Your task to perform on an android device: toggle show notifications on the lock screen Image 0: 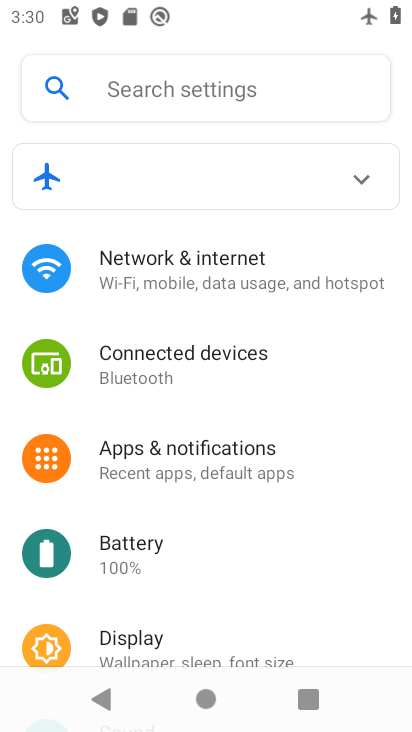
Step 0: click (178, 477)
Your task to perform on an android device: toggle show notifications on the lock screen Image 1: 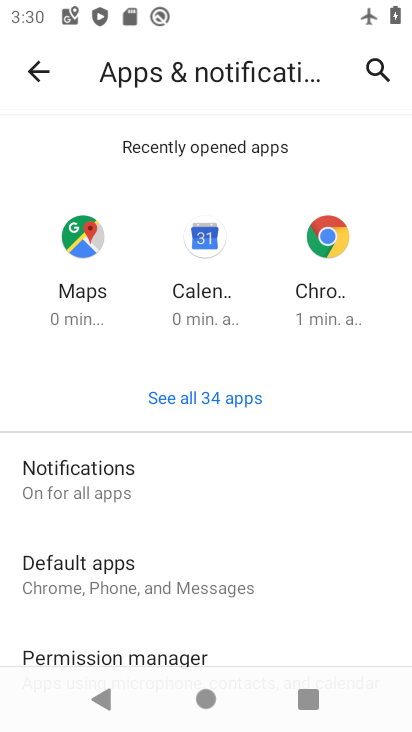
Step 1: drag from (84, 628) to (250, 203)
Your task to perform on an android device: toggle show notifications on the lock screen Image 2: 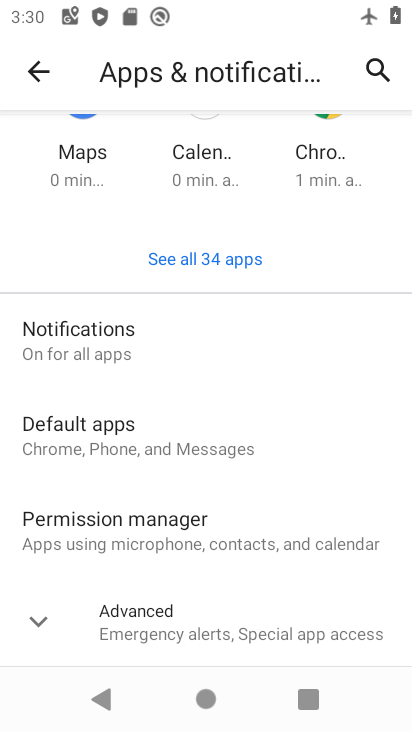
Step 2: click (166, 361)
Your task to perform on an android device: toggle show notifications on the lock screen Image 3: 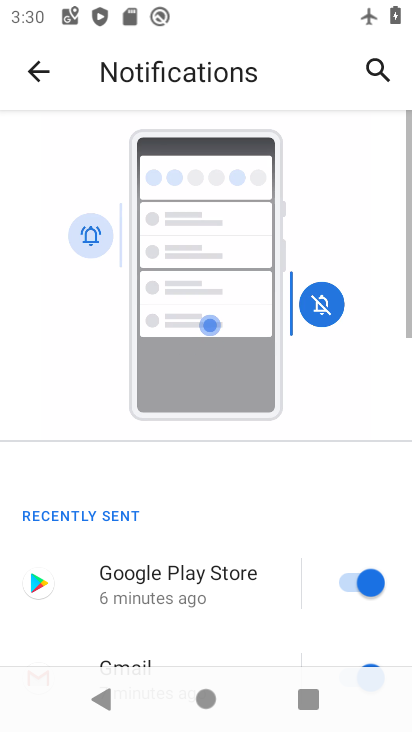
Step 3: drag from (177, 639) to (339, 122)
Your task to perform on an android device: toggle show notifications on the lock screen Image 4: 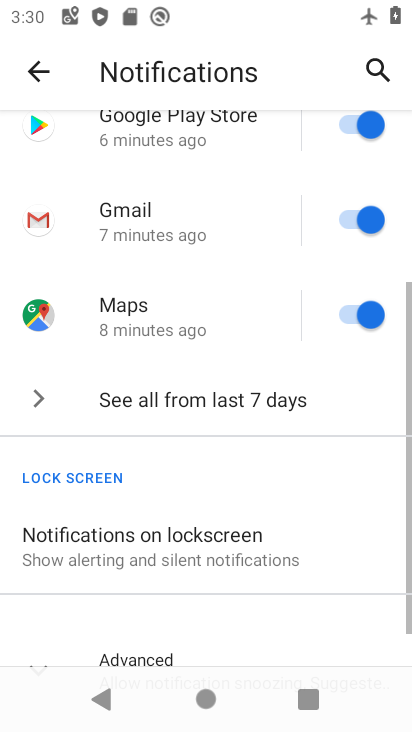
Step 4: drag from (155, 569) to (262, 232)
Your task to perform on an android device: toggle show notifications on the lock screen Image 5: 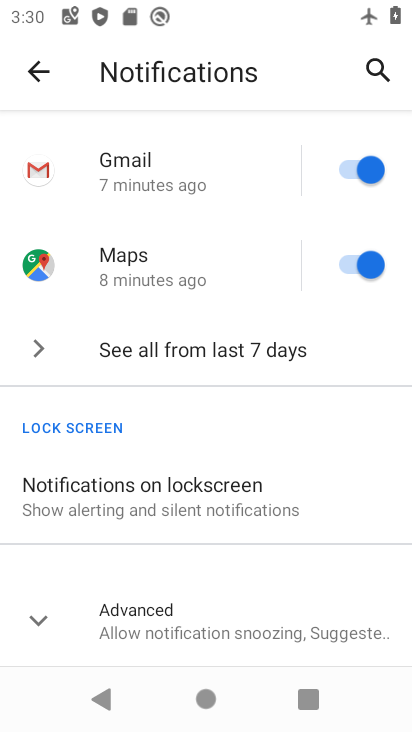
Step 5: click (236, 509)
Your task to perform on an android device: toggle show notifications on the lock screen Image 6: 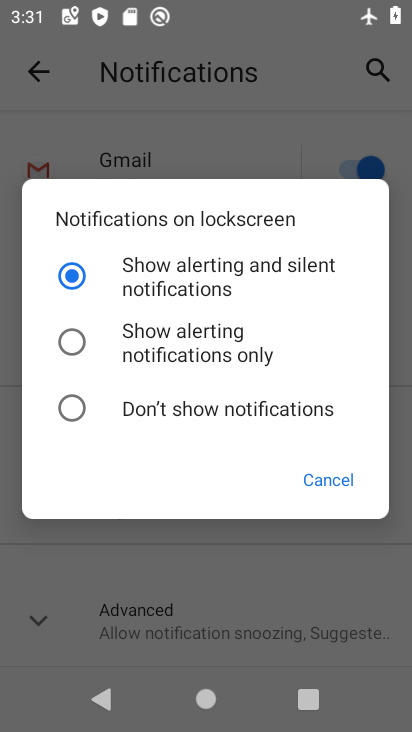
Step 6: click (169, 411)
Your task to perform on an android device: toggle show notifications on the lock screen Image 7: 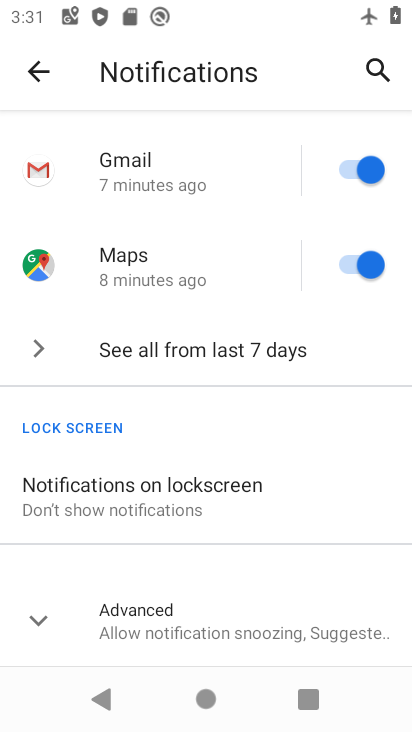
Step 7: task complete